Your task to perform on an android device: open a new tab in the chrome app Image 0: 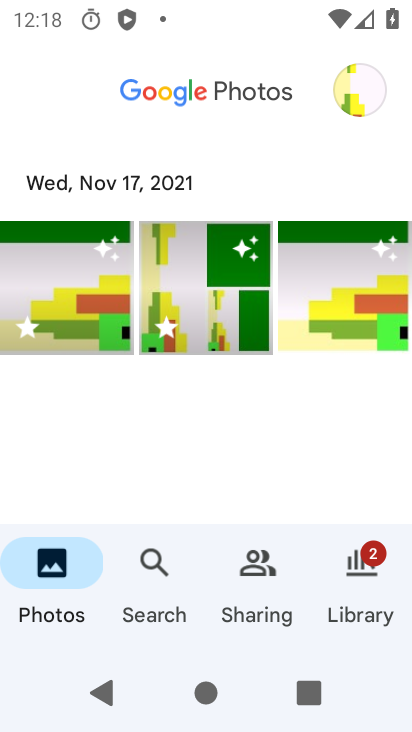
Step 0: press home button
Your task to perform on an android device: open a new tab in the chrome app Image 1: 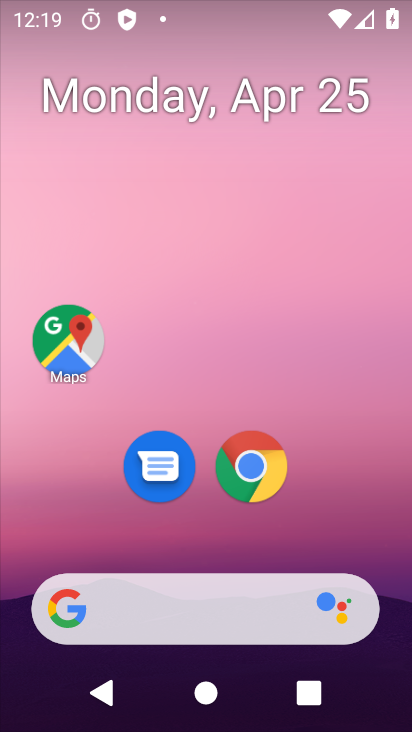
Step 1: click (256, 471)
Your task to perform on an android device: open a new tab in the chrome app Image 2: 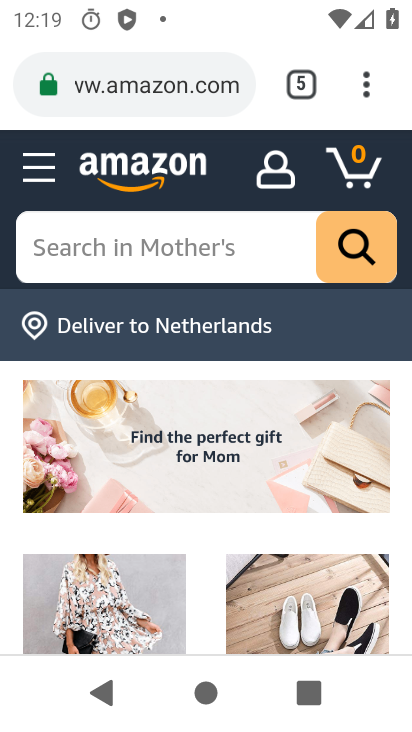
Step 2: click (287, 81)
Your task to perform on an android device: open a new tab in the chrome app Image 3: 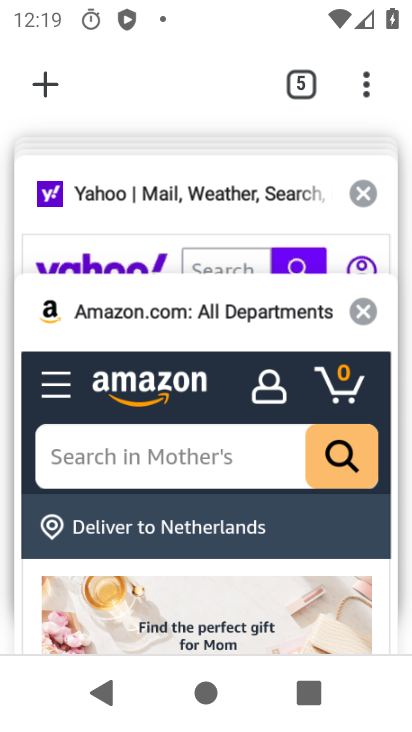
Step 3: click (60, 75)
Your task to perform on an android device: open a new tab in the chrome app Image 4: 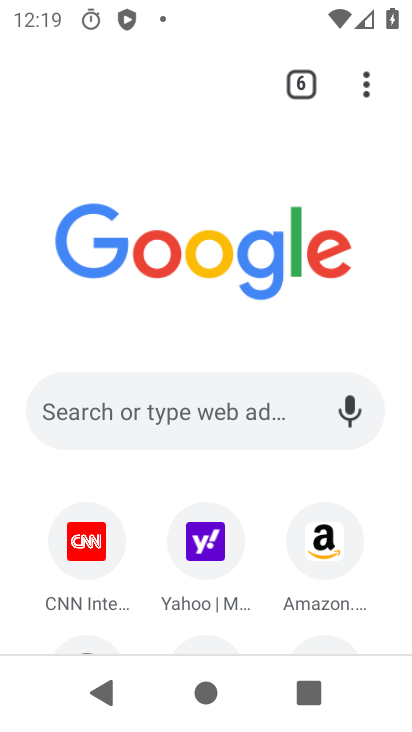
Step 4: task complete